Your task to perform on an android device: change the upload size in google photos Image 0: 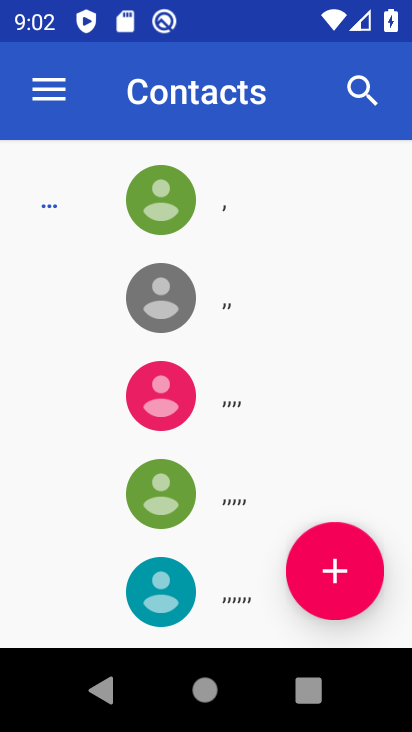
Step 0: press home button
Your task to perform on an android device: change the upload size in google photos Image 1: 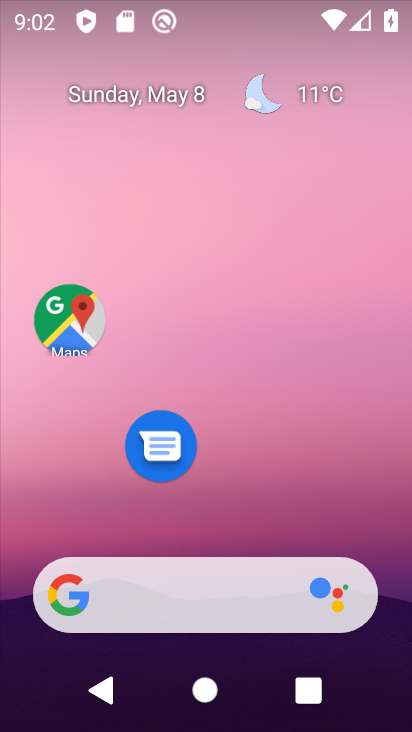
Step 1: drag from (284, 472) to (221, 69)
Your task to perform on an android device: change the upload size in google photos Image 2: 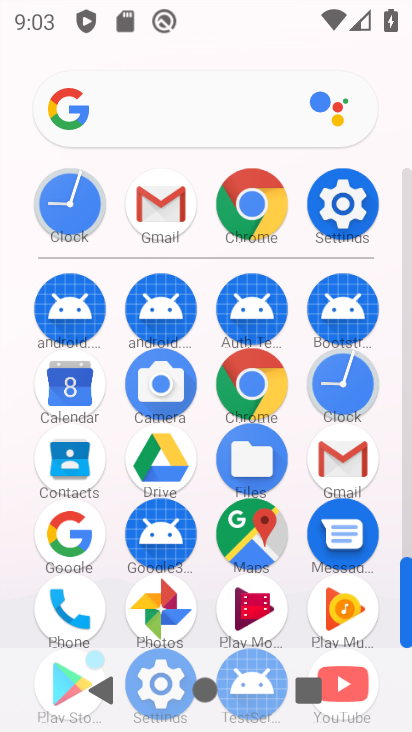
Step 2: drag from (301, 655) to (266, 279)
Your task to perform on an android device: change the upload size in google photos Image 3: 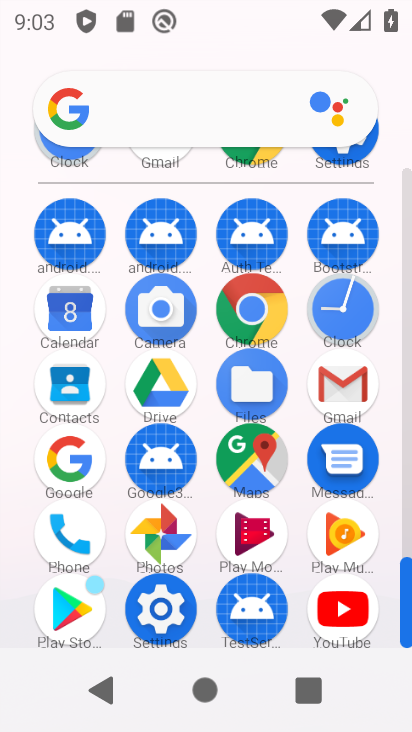
Step 3: click (167, 556)
Your task to perform on an android device: change the upload size in google photos Image 4: 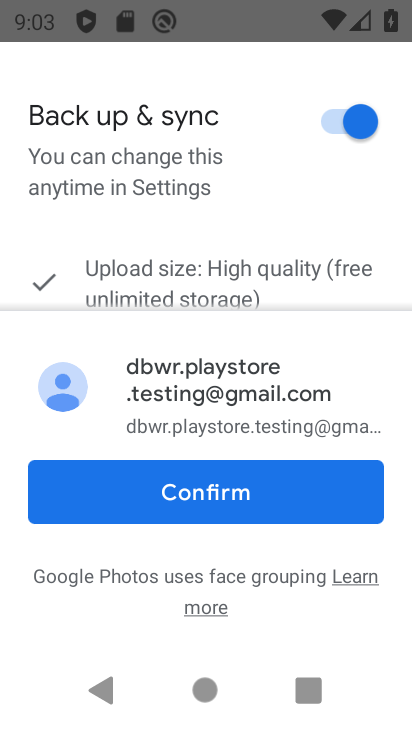
Step 4: click (350, 487)
Your task to perform on an android device: change the upload size in google photos Image 5: 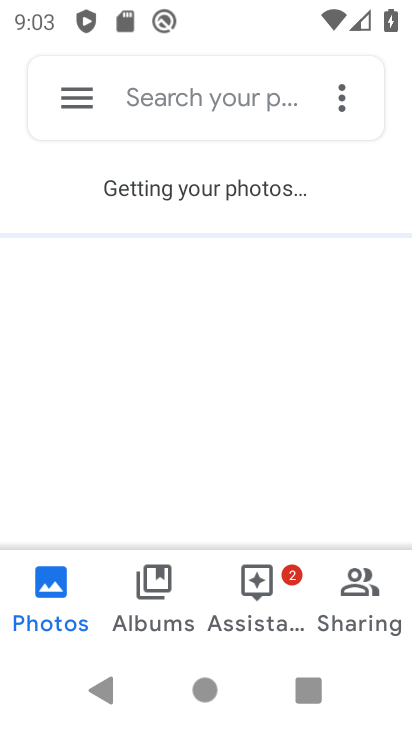
Step 5: click (343, 91)
Your task to perform on an android device: change the upload size in google photos Image 6: 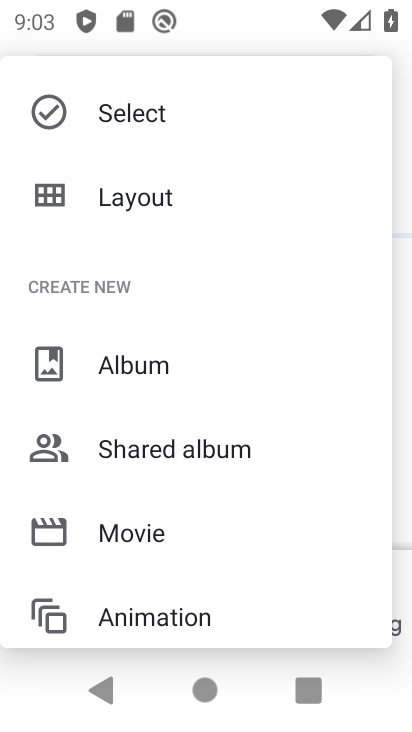
Step 6: click (284, 23)
Your task to perform on an android device: change the upload size in google photos Image 7: 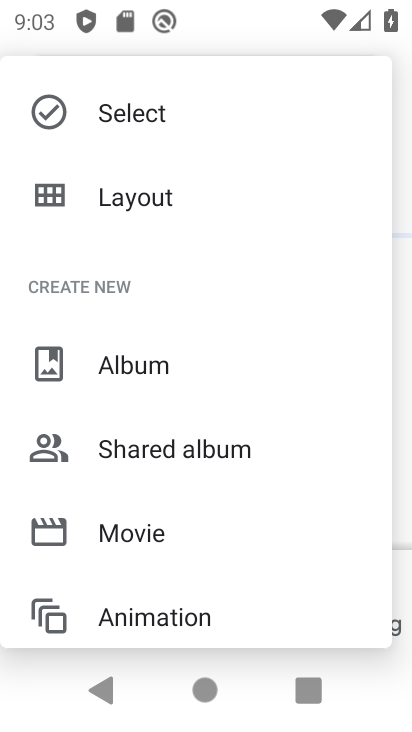
Step 7: press back button
Your task to perform on an android device: change the upload size in google photos Image 8: 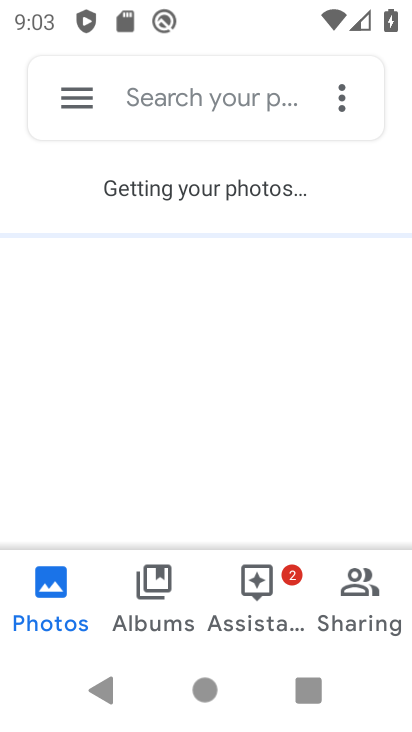
Step 8: click (69, 109)
Your task to perform on an android device: change the upload size in google photos Image 9: 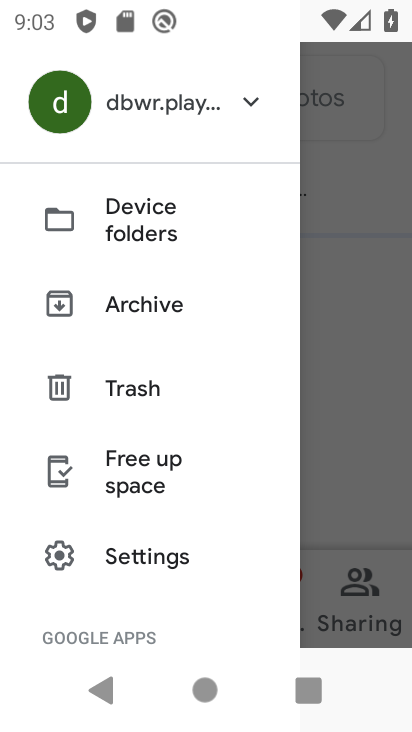
Step 9: click (162, 557)
Your task to perform on an android device: change the upload size in google photos Image 10: 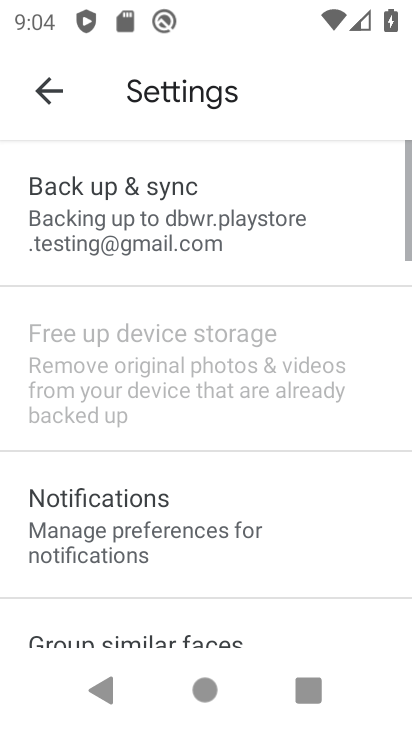
Step 10: click (174, 246)
Your task to perform on an android device: change the upload size in google photos Image 11: 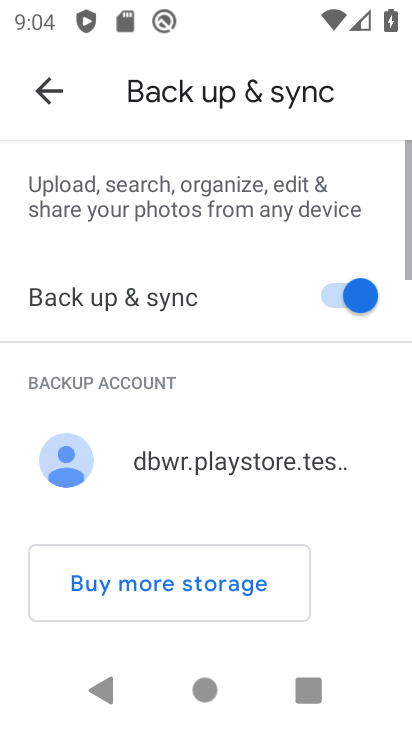
Step 11: drag from (217, 535) to (207, 151)
Your task to perform on an android device: change the upload size in google photos Image 12: 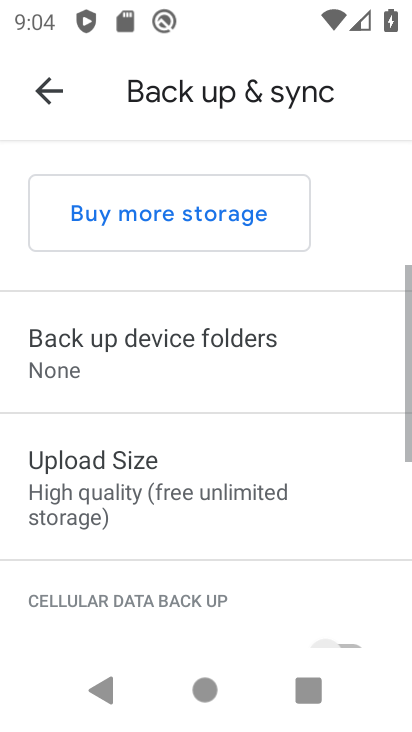
Step 12: drag from (225, 532) to (210, 315)
Your task to perform on an android device: change the upload size in google photos Image 13: 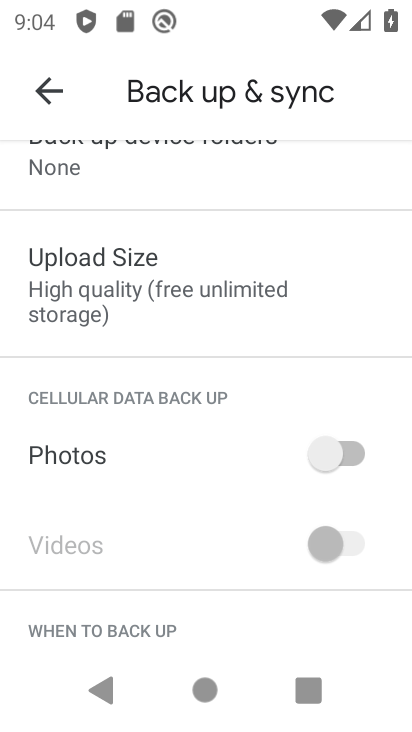
Step 13: click (165, 292)
Your task to perform on an android device: change the upload size in google photos Image 14: 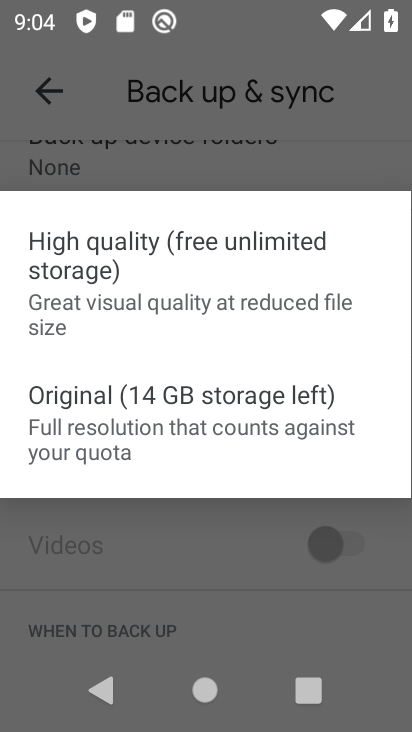
Step 14: click (165, 394)
Your task to perform on an android device: change the upload size in google photos Image 15: 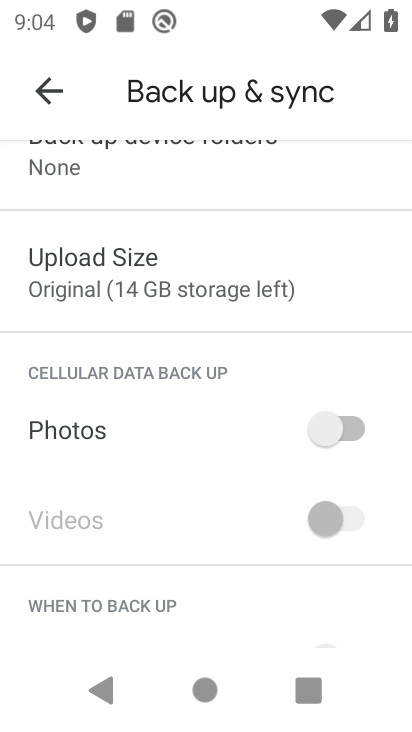
Step 15: task complete